Your task to perform on an android device: Open the calendar app, open the side menu, and click the "Day" option Image 0: 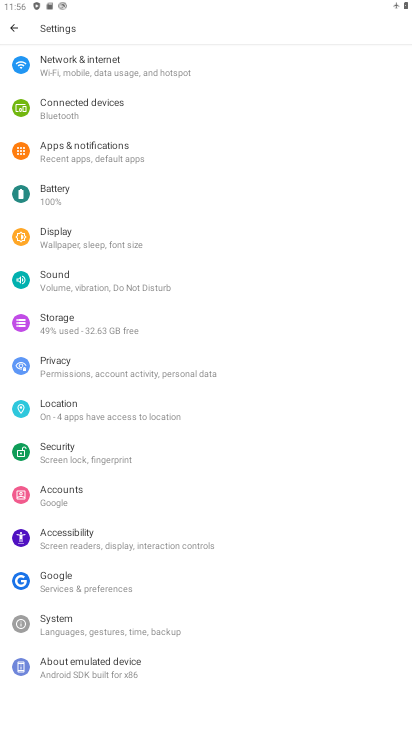
Step 0: press home button
Your task to perform on an android device: Open the calendar app, open the side menu, and click the "Day" option Image 1: 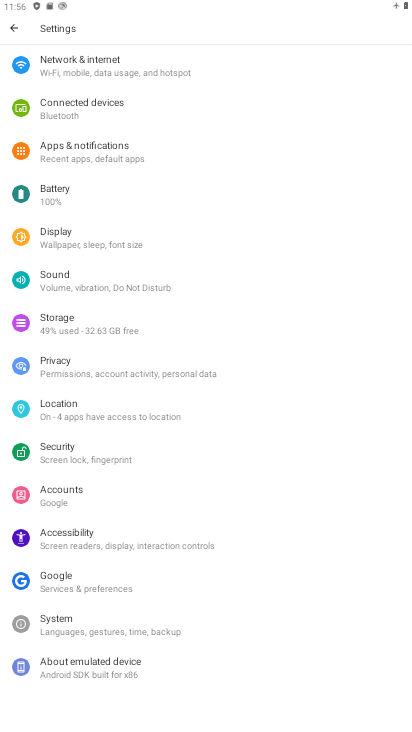
Step 1: press home button
Your task to perform on an android device: Open the calendar app, open the side menu, and click the "Day" option Image 2: 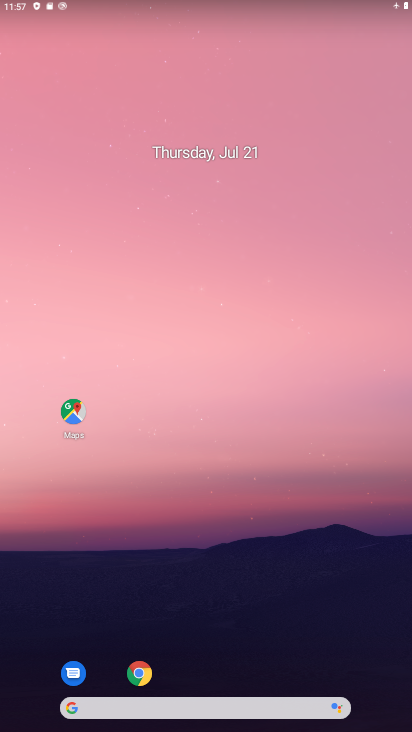
Step 2: drag from (207, 644) to (372, 21)
Your task to perform on an android device: Open the calendar app, open the side menu, and click the "Day" option Image 3: 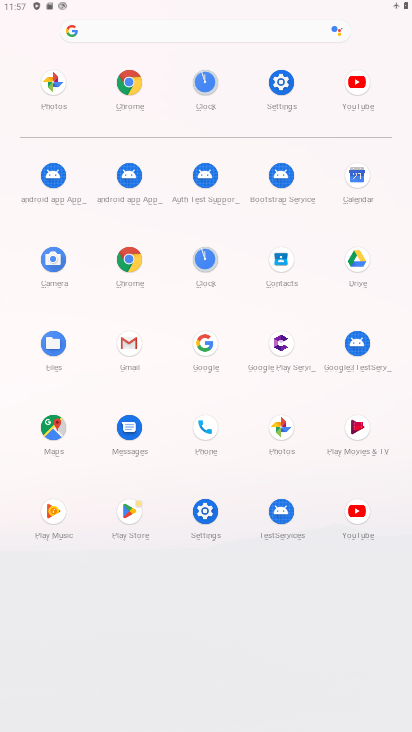
Step 3: click (361, 177)
Your task to perform on an android device: Open the calendar app, open the side menu, and click the "Day" option Image 4: 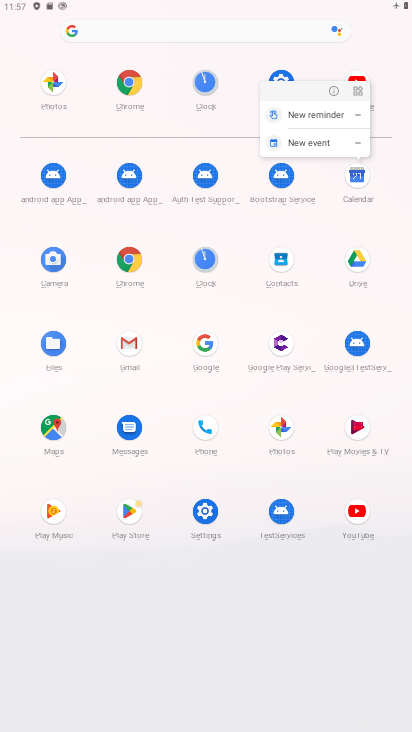
Step 4: click (331, 95)
Your task to perform on an android device: Open the calendar app, open the side menu, and click the "Day" option Image 5: 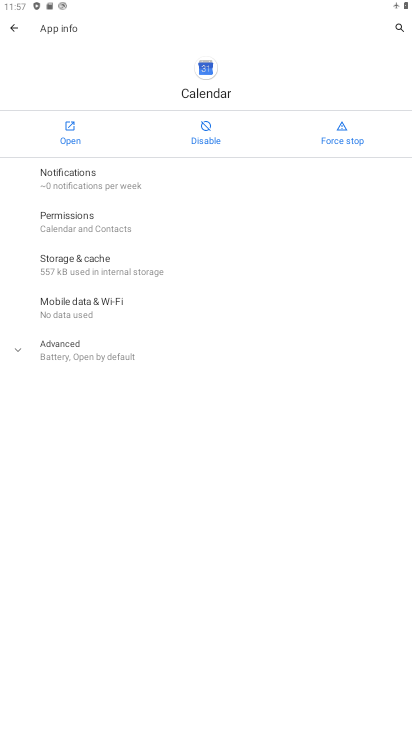
Step 5: click (80, 137)
Your task to perform on an android device: Open the calendar app, open the side menu, and click the "Day" option Image 6: 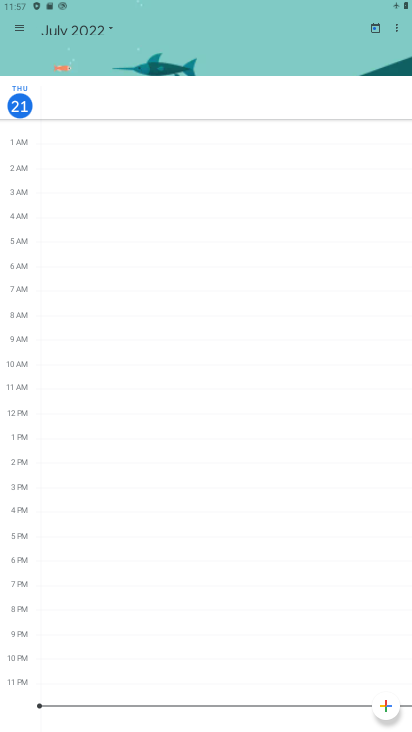
Step 6: click (25, 23)
Your task to perform on an android device: Open the calendar app, open the side menu, and click the "Day" option Image 7: 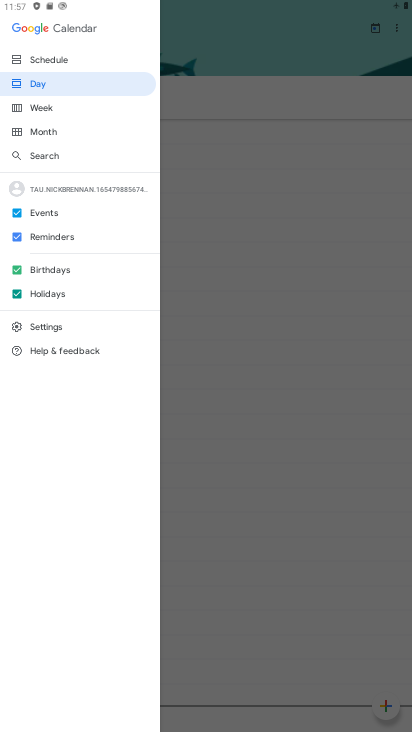
Step 7: click (54, 79)
Your task to perform on an android device: Open the calendar app, open the side menu, and click the "Day" option Image 8: 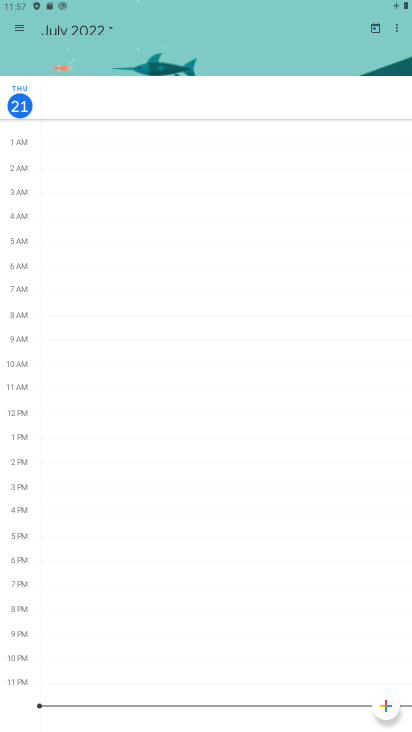
Step 8: task complete